Your task to perform on an android device: Open maps Image 0: 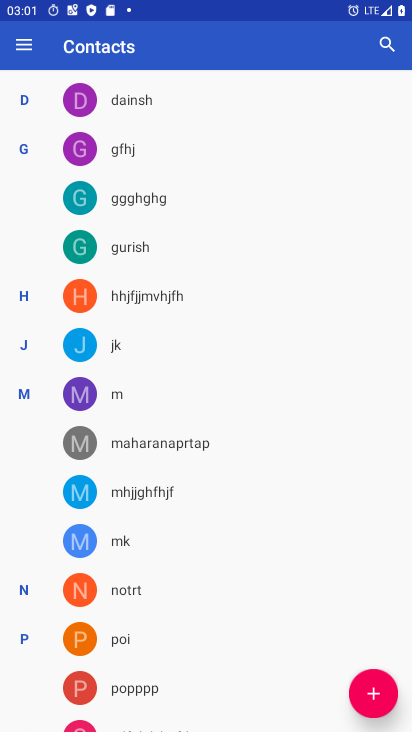
Step 0: press home button
Your task to perform on an android device: Open maps Image 1: 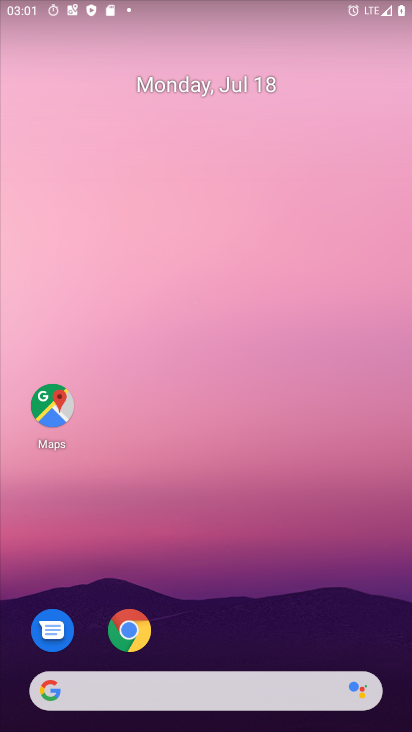
Step 1: click (50, 420)
Your task to perform on an android device: Open maps Image 2: 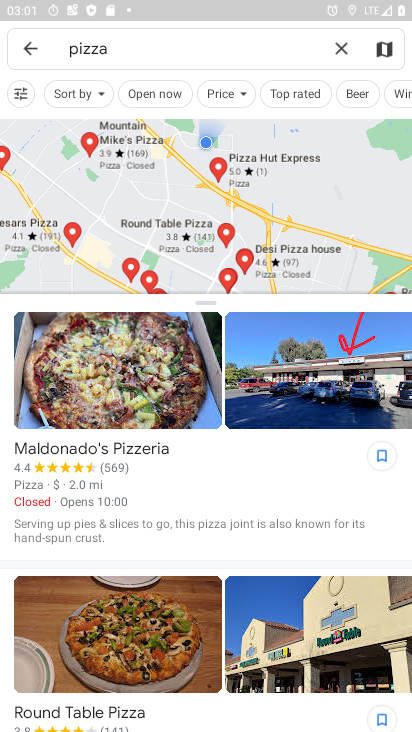
Step 2: task complete